Your task to perform on an android device: check android version Image 0: 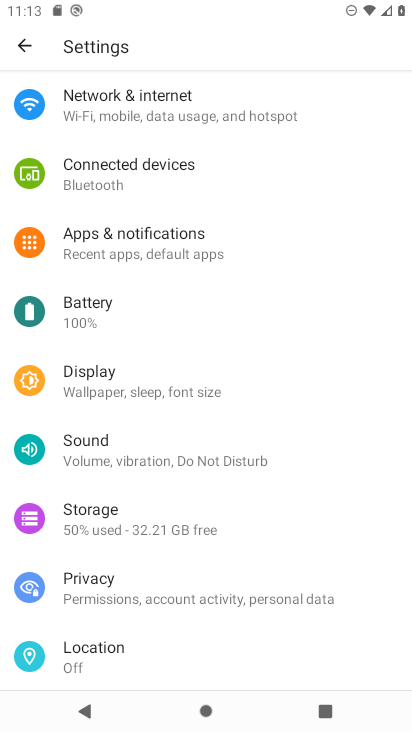
Step 0: drag from (297, 610) to (289, 111)
Your task to perform on an android device: check android version Image 1: 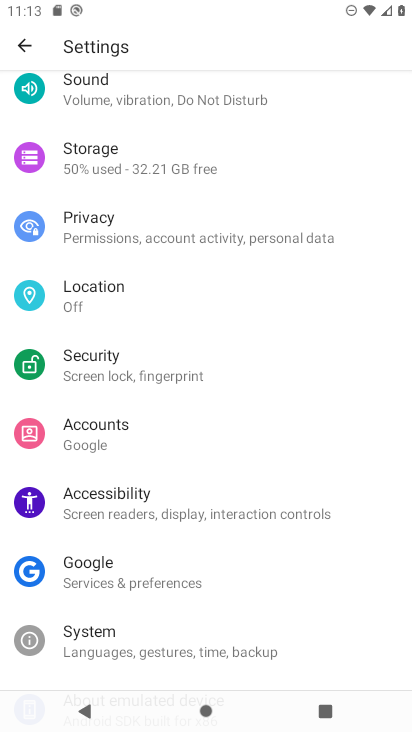
Step 1: drag from (305, 632) to (329, 180)
Your task to perform on an android device: check android version Image 2: 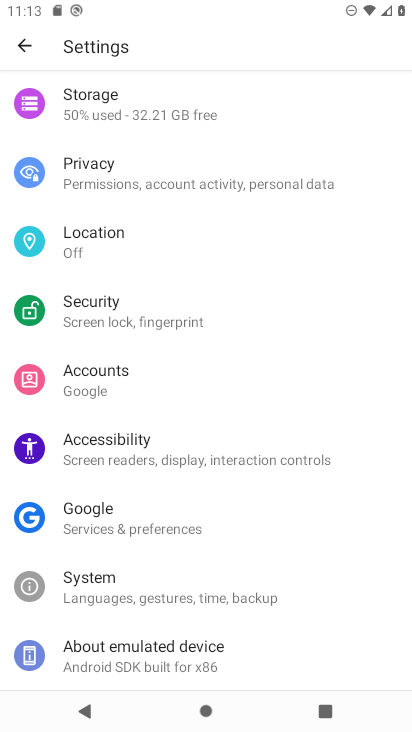
Step 2: click (128, 644)
Your task to perform on an android device: check android version Image 3: 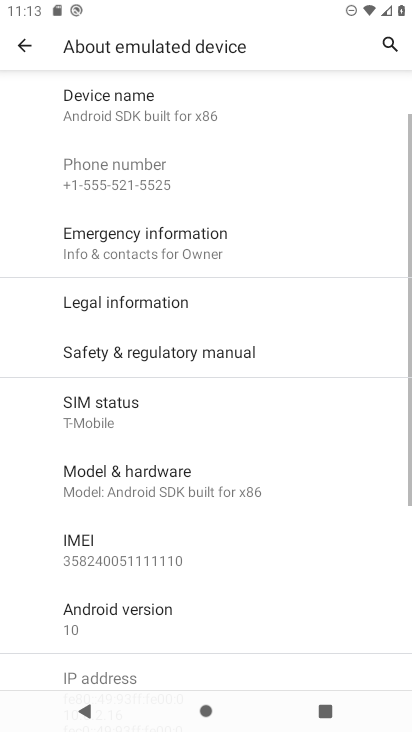
Step 3: click (112, 614)
Your task to perform on an android device: check android version Image 4: 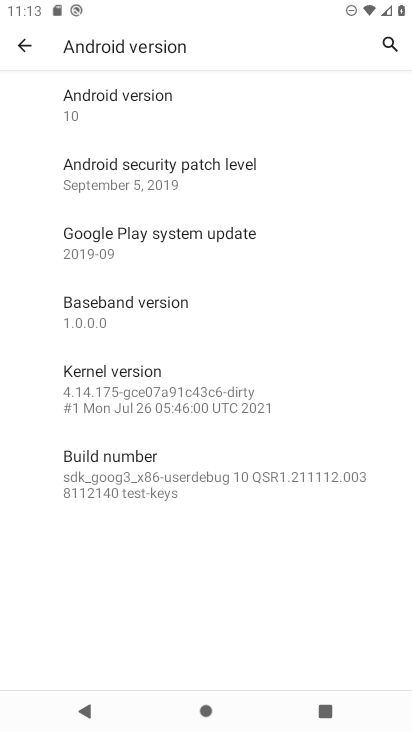
Step 4: click (146, 91)
Your task to perform on an android device: check android version Image 5: 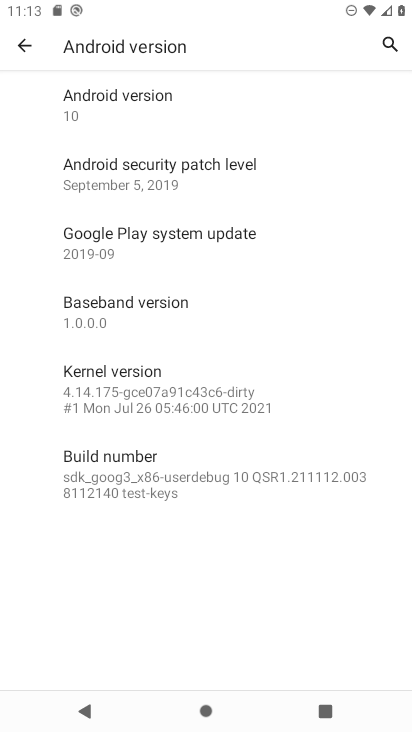
Step 5: task complete